Your task to perform on an android device: Open notification settings Image 0: 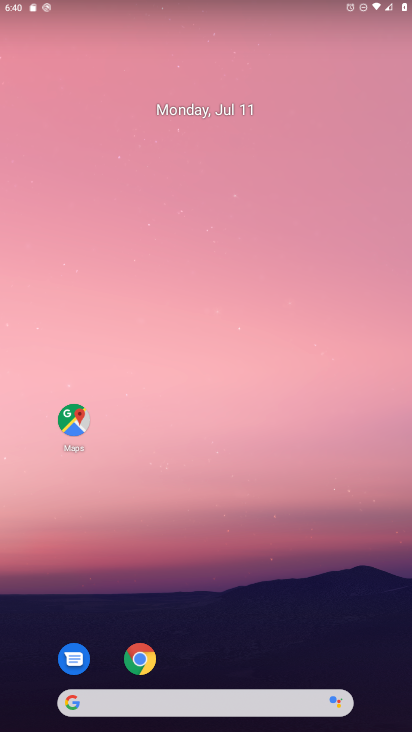
Step 0: drag from (376, 667) to (324, 44)
Your task to perform on an android device: Open notification settings Image 1: 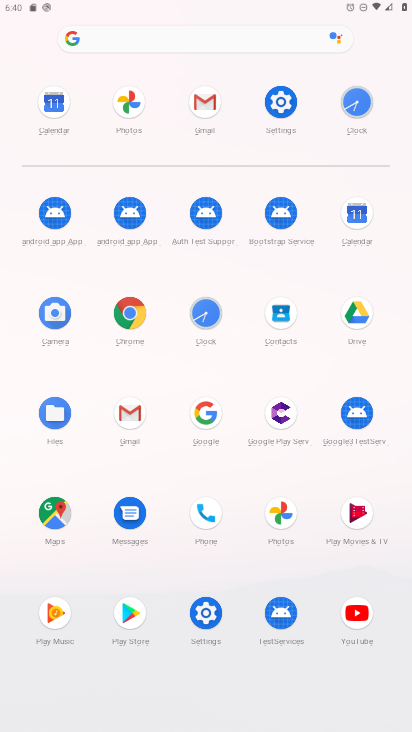
Step 1: click (206, 614)
Your task to perform on an android device: Open notification settings Image 2: 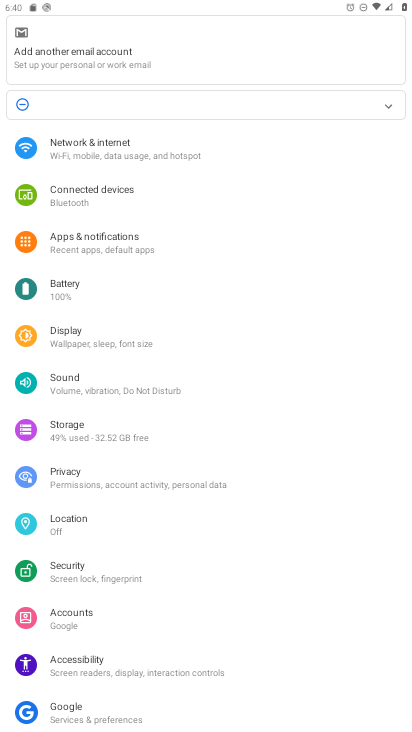
Step 2: click (73, 239)
Your task to perform on an android device: Open notification settings Image 3: 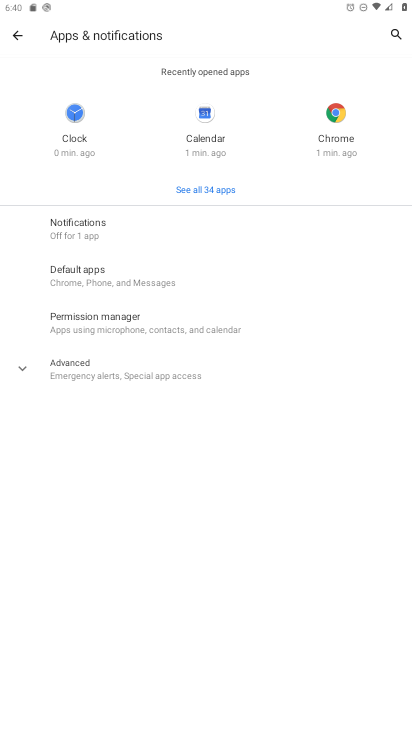
Step 3: click (68, 222)
Your task to perform on an android device: Open notification settings Image 4: 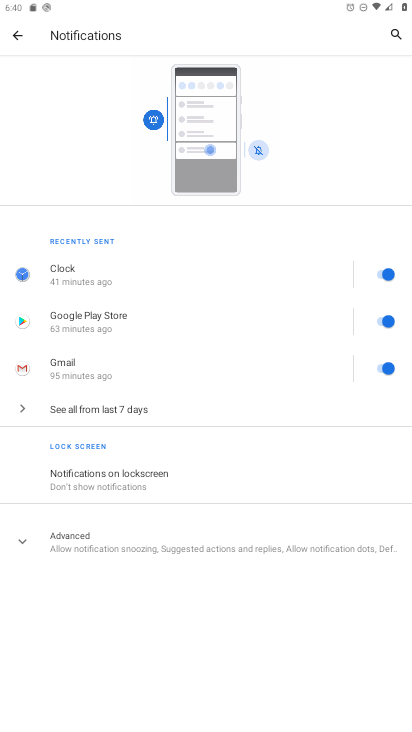
Step 4: click (19, 542)
Your task to perform on an android device: Open notification settings Image 5: 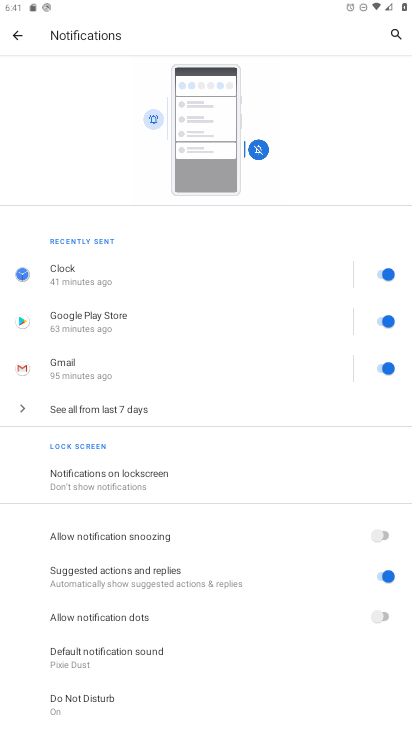
Step 5: task complete